Your task to perform on an android device: turn on improve location accuracy Image 0: 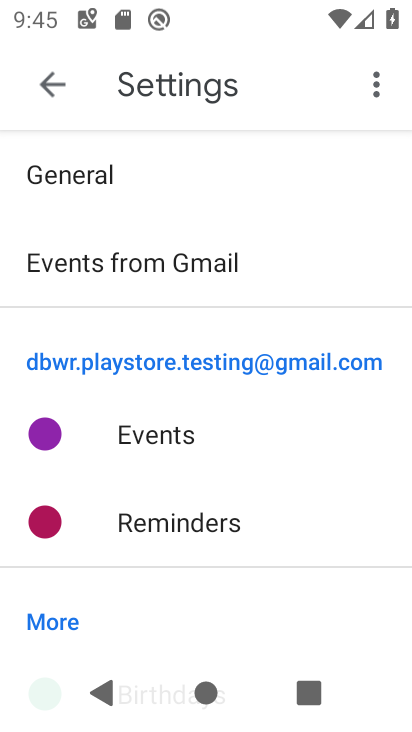
Step 0: press home button
Your task to perform on an android device: turn on improve location accuracy Image 1: 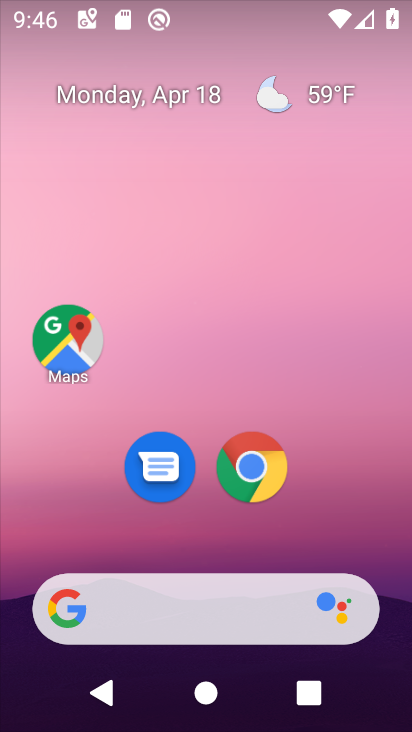
Step 1: drag from (253, 201) to (263, 3)
Your task to perform on an android device: turn on improve location accuracy Image 2: 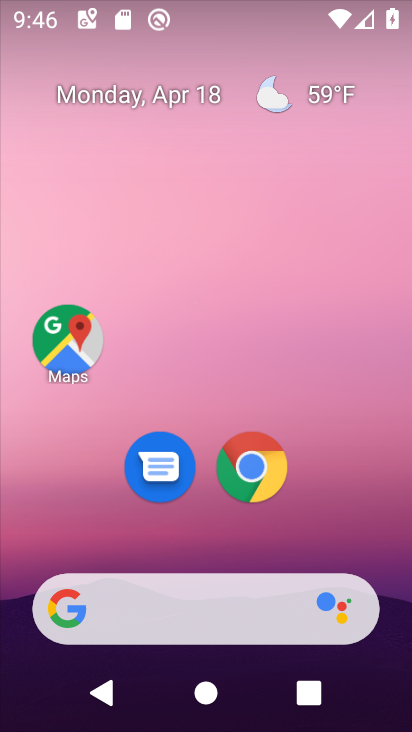
Step 2: drag from (254, 444) to (254, 13)
Your task to perform on an android device: turn on improve location accuracy Image 3: 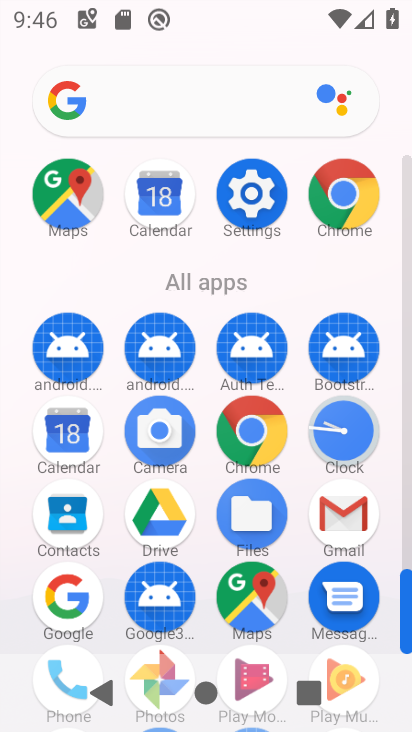
Step 3: click (250, 188)
Your task to perform on an android device: turn on improve location accuracy Image 4: 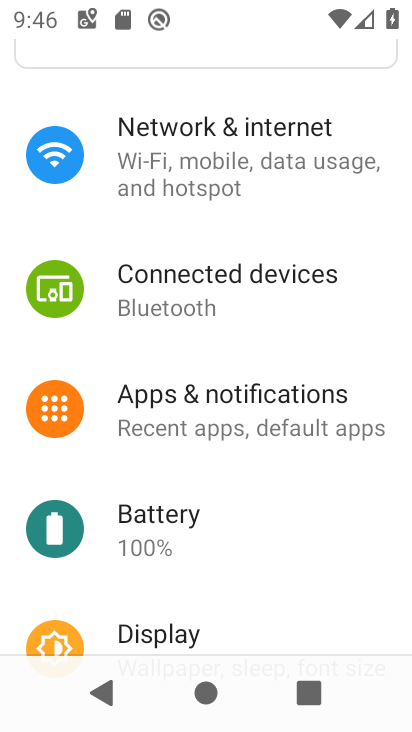
Step 4: drag from (207, 552) to (283, 32)
Your task to perform on an android device: turn on improve location accuracy Image 5: 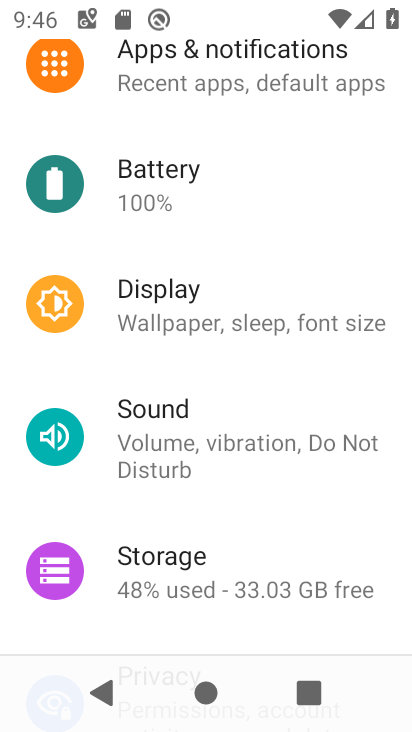
Step 5: drag from (178, 536) to (263, 50)
Your task to perform on an android device: turn on improve location accuracy Image 6: 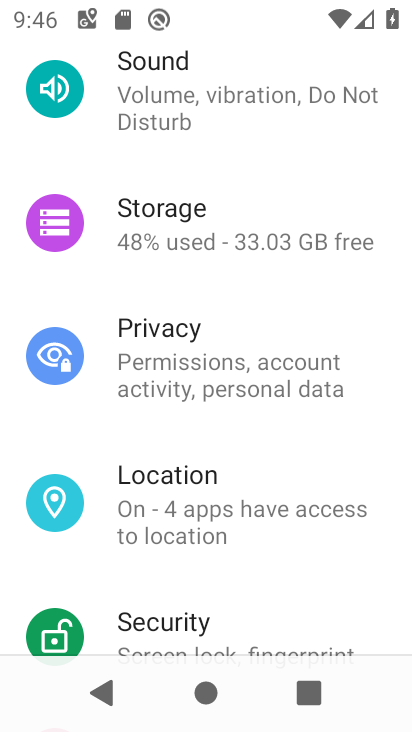
Step 6: click (153, 498)
Your task to perform on an android device: turn on improve location accuracy Image 7: 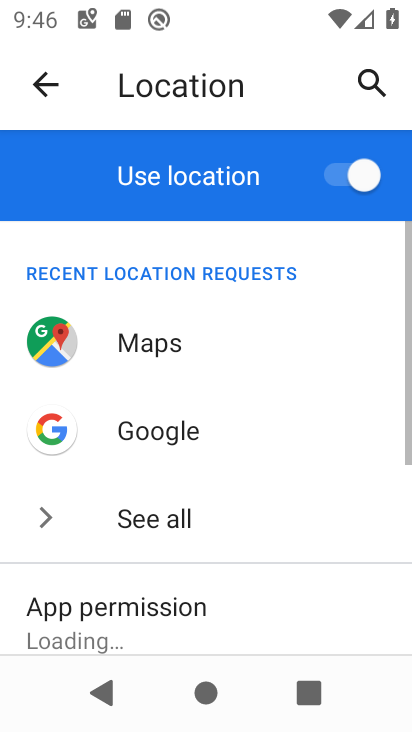
Step 7: drag from (150, 642) to (236, 123)
Your task to perform on an android device: turn on improve location accuracy Image 8: 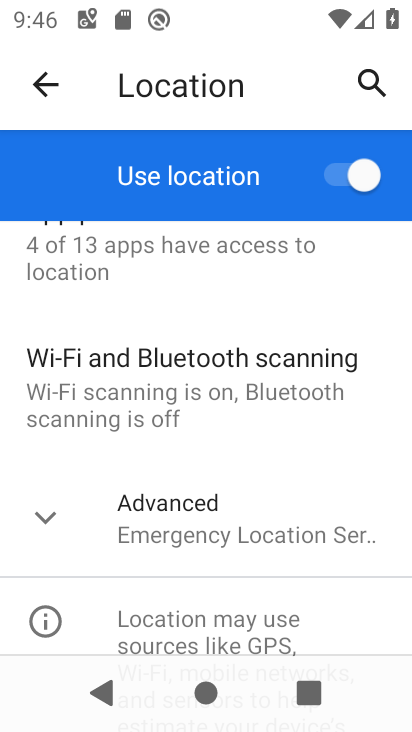
Step 8: click (209, 502)
Your task to perform on an android device: turn on improve location accuracy Image 9: 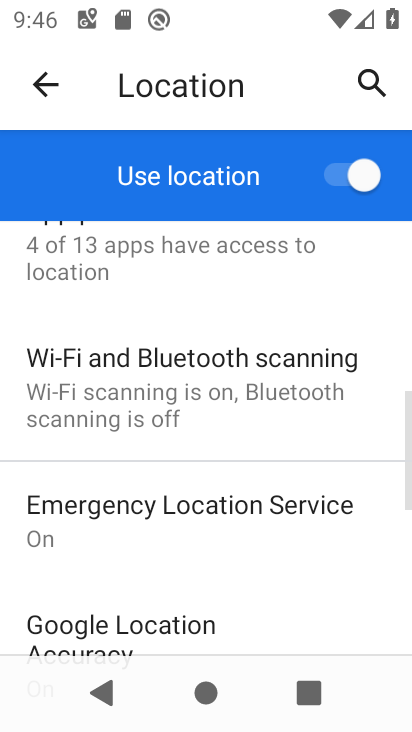
Step 9: click (128, 633)
Your task to perform on an android device: turn on improve location accuracy Image 10: 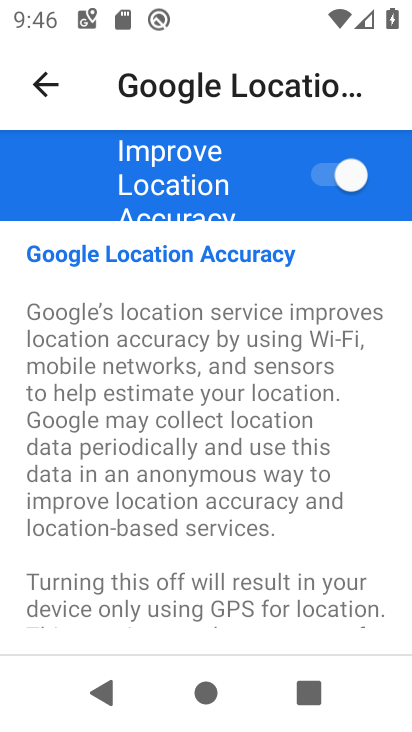
Step 10: task complete